Your task to perform on an android device: Open settings Image 0: 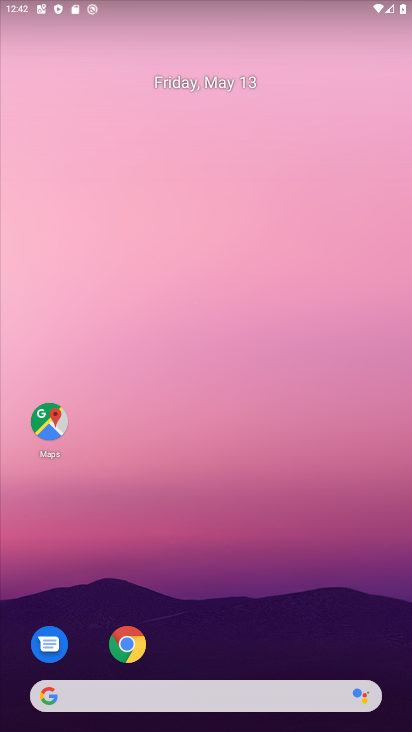
Step 0: drag from (272, 662) to (301, 27)
Your task to perform on an android device: Open settings Image 1: 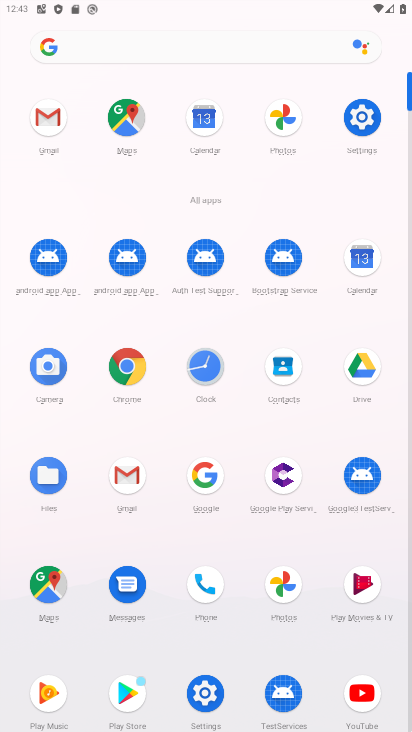
Step 1: click (355, 102)
Your task to perform on an android device: Open settings Image 2: 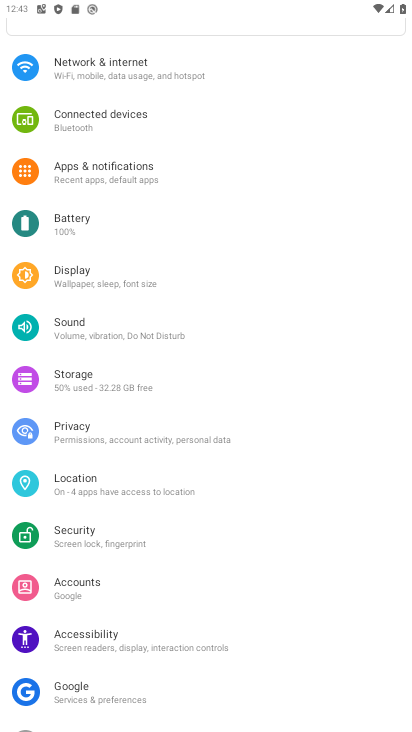
Step 2: task complete